Your task to perform on an android device: snooze an email in the gmail app Image 0: 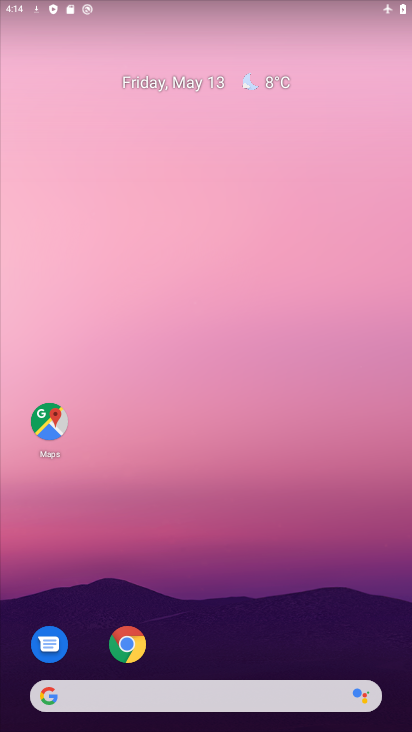
Step 0: click (269, 7)
Your task to perform on an android device: snooze an email in the gmail app Image 1: 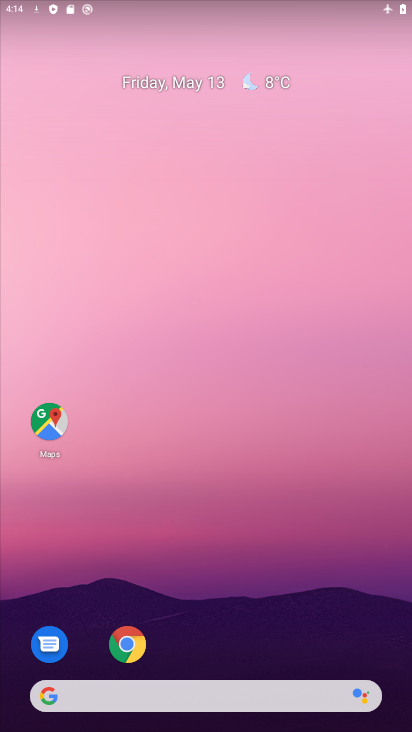
Step 1: drag from (225, 450) to (200, 161)
Your task to perform on an android device: snooze an email in the gmail app Image 2: 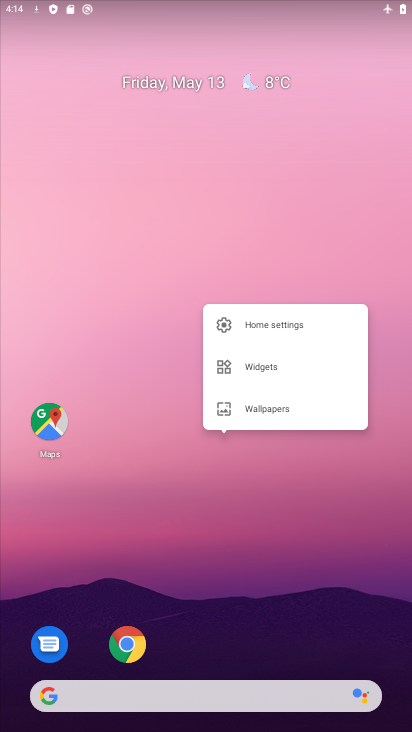
Step 2: click (223, 577)
Your task to perform on an android device: snooze an email in the gmail app Image 3: 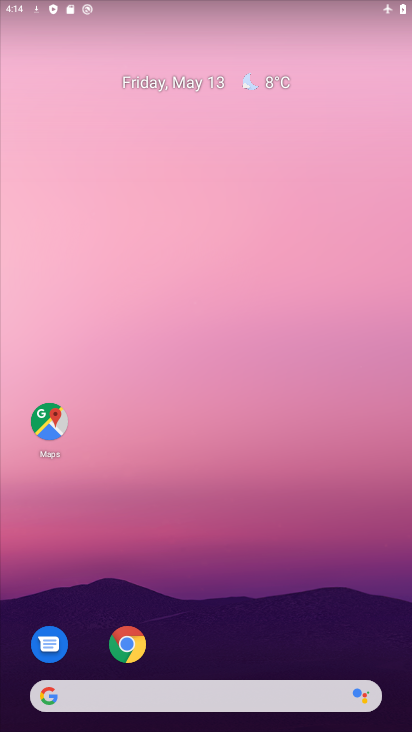
Step 3: drag from (208, 621) to (220, 175)
Your task to perform on an android device: snooze an email in the gmail app Image 4: 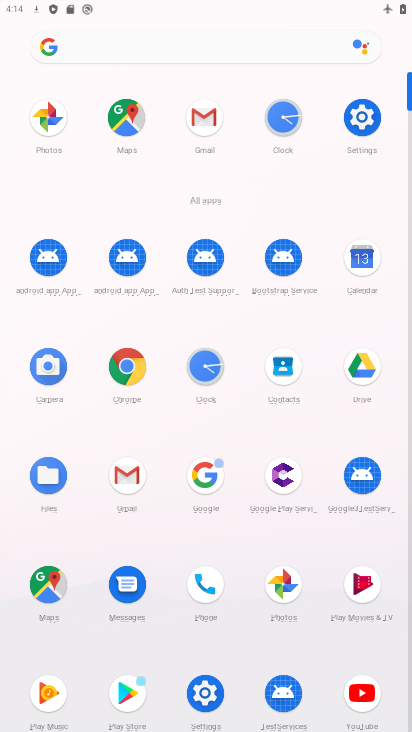
Step 4: click (201, 126)
Your task to perform on an android device: snooze an email in the gmail app Image 5: 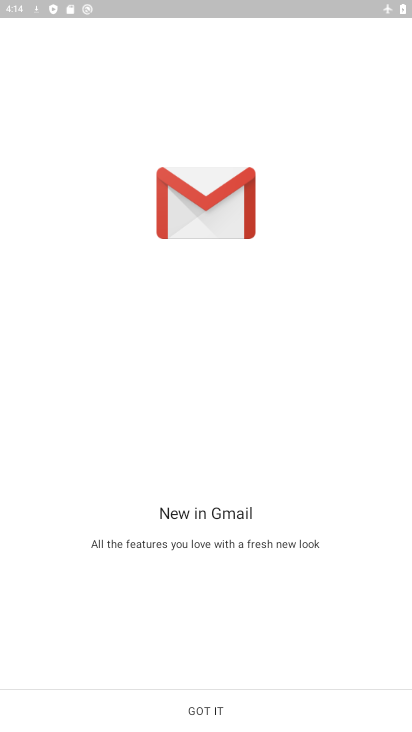
Step 5: click (214, 718)
Your task to perform on an android device: snooze an email in the gmail app Image 6: 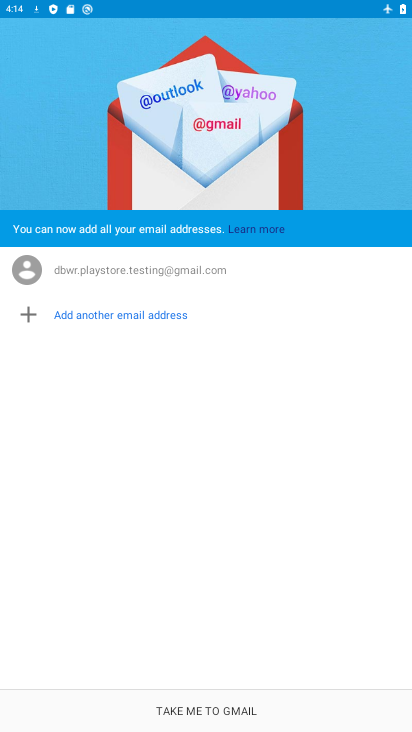
Step 6: click (214, 718)
Your task to perform on an android device: snooze an email in the gmail app Image 7: 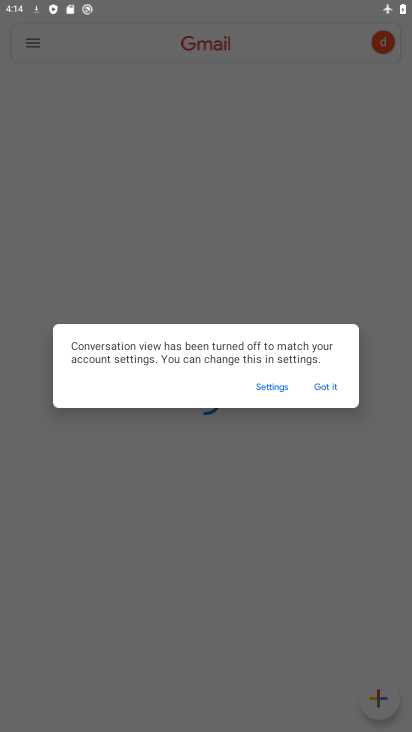
Step 7: click (311, 388)
Your task to perform on an android device: snooze an email in the gmail app Image 8: 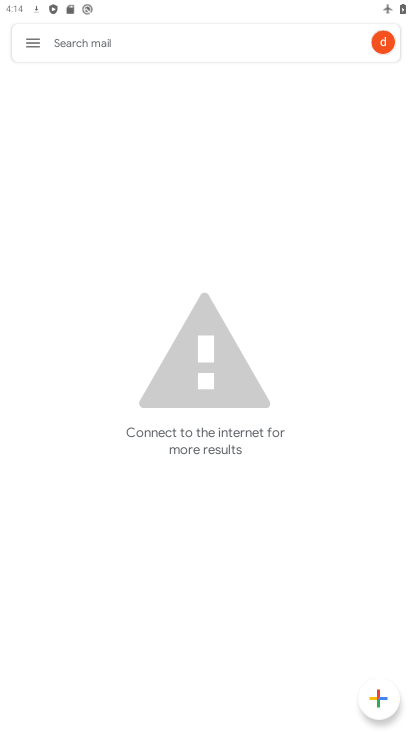
Step 8: task complete